Your task to perform on an android device: Is it going to rain today? Image 0: 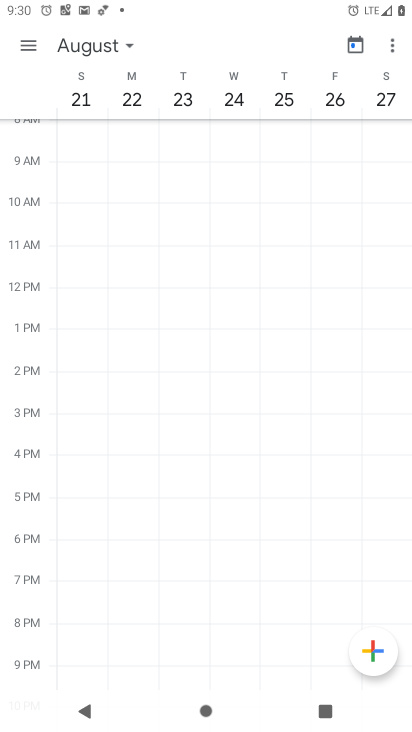
Step 0: press home button
Your task to perform on an android device: Is it going to rain today? Image 1: 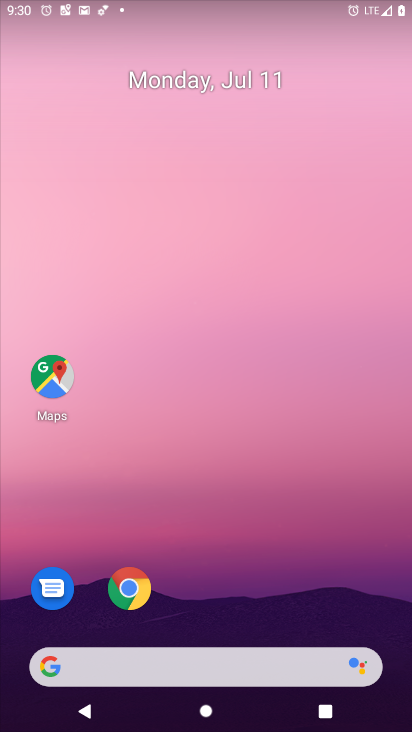
Step 1: click (175, 660)
Your task to perform on an android device: Is it going to rain today? Image 2: 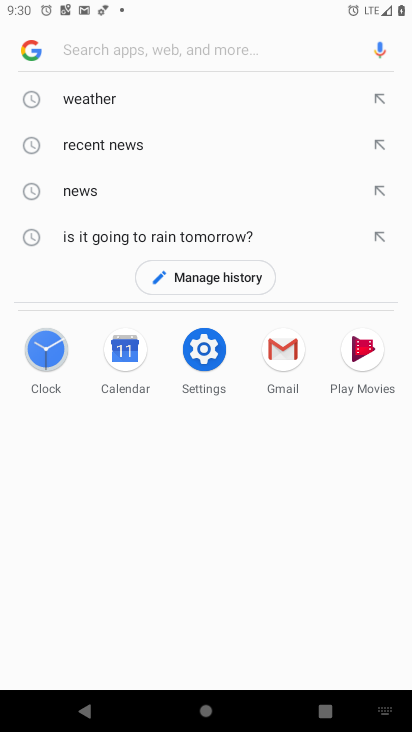
Step 2: type "Is it going to rain today"
Your task to perform on an android device: Is it going to rain today? Image 3: 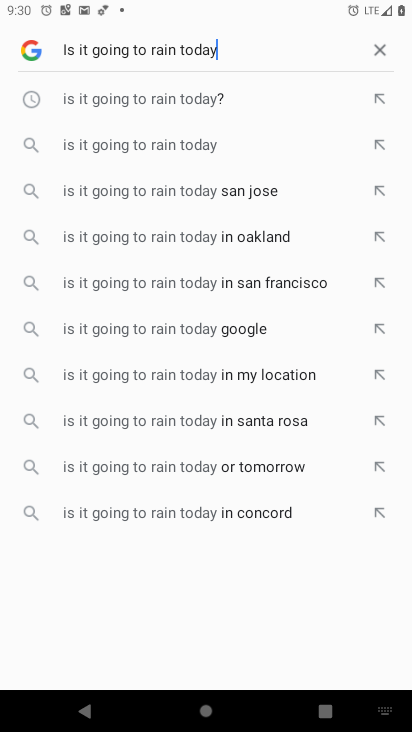
Step 3: click (141, 94)
Your task to perform on an android device: Is it going to rain today? Image 4: 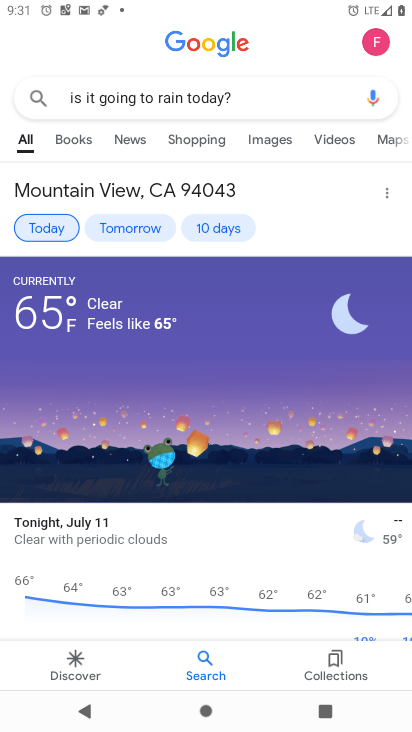
Step 4: task complete